Your task to perform on an android device: Open settings on Google Maps Image 0: 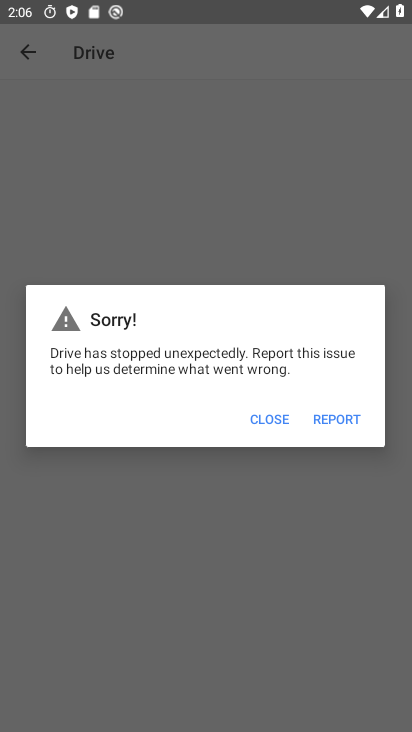
Step 0: press home button
Your task to perform on an android device: Open settings on Google Maps Image 1: 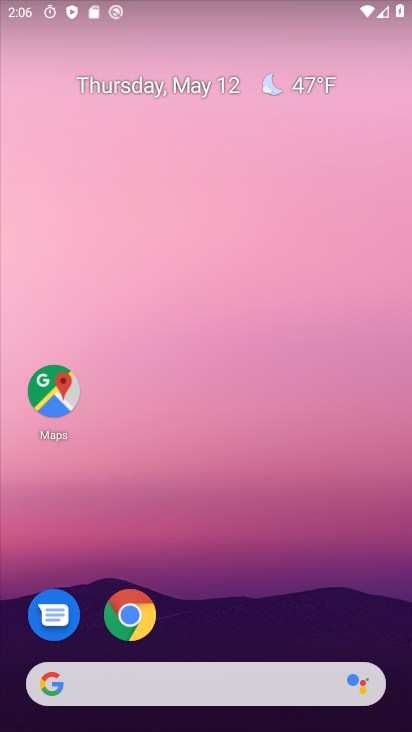
Step 1: click (51, 395)
Your task to perform on an android device: Open settings on Google Maps Image 2: 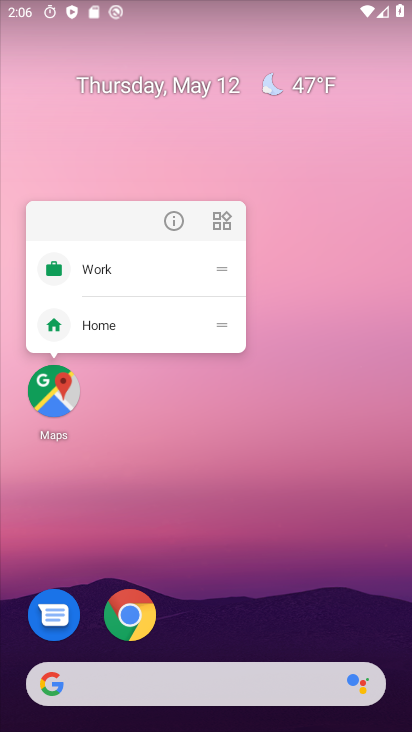
Step 2: click (51, 395)
Your task to perform on an android device: Open settings on Google Maps Image 3: 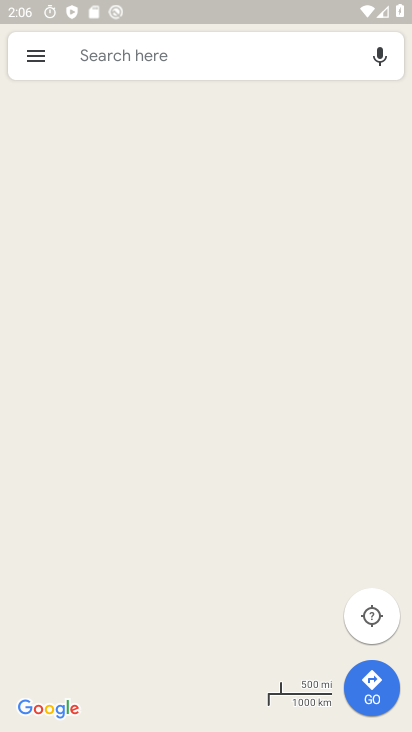
Step 3: click (27, 59)
Your task to perform on an android device: Open settings on Google Maps Image 4: 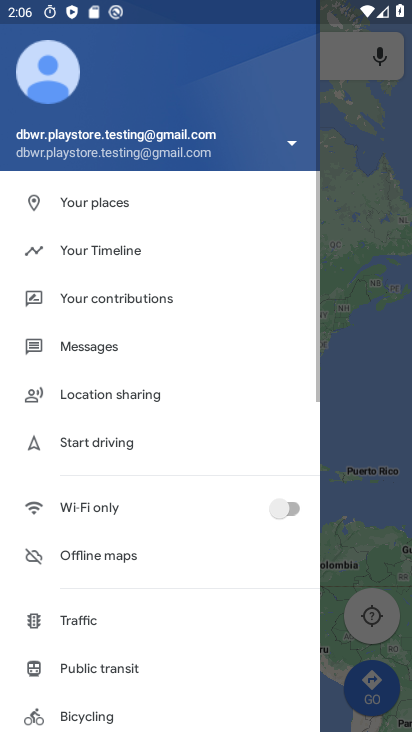
Step 4: drag from (95, 679) to (144, 242)
Your task to perform on an android device: Open settings on Google Maps Image 5: 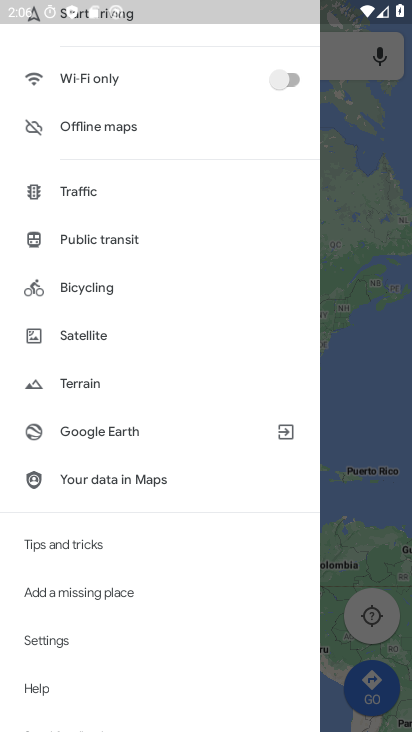
Step 5: click (53, 649)
Your task to perform on an android device: Open settings on Google Maps Image 6: 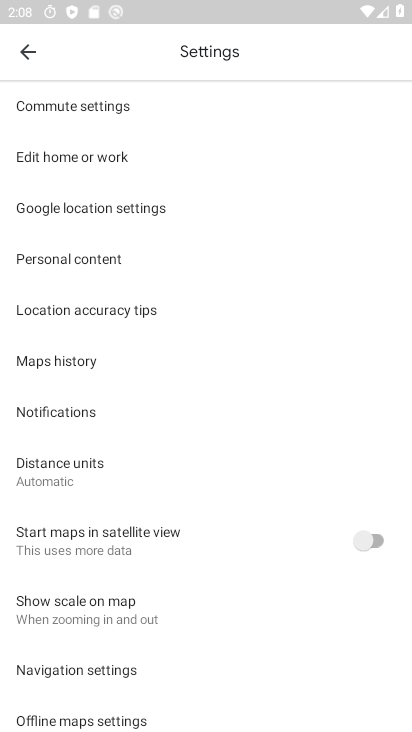
Step 6: task complete